Your task to perform on an android device: turn smart compose on in the gmail app Image 0: 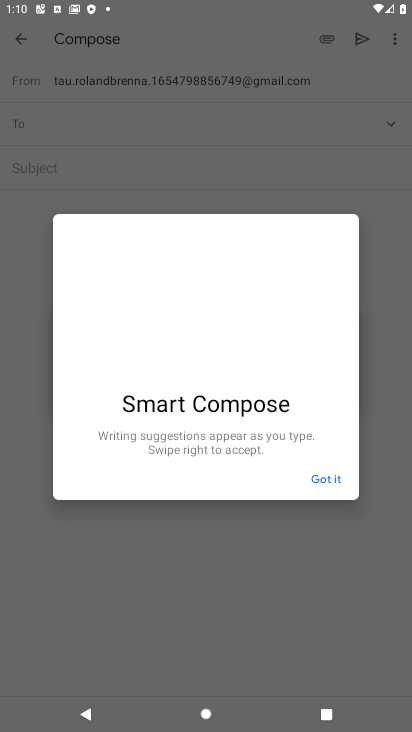
Step 0: drag from (393, 626) to (363, 454)
Your task to perform on an android device: turn smart compose on in the gmail app Image 1: 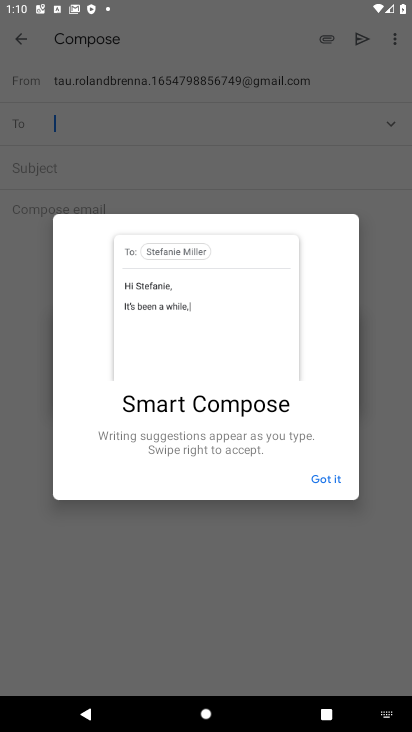
Step 1: press home button
Your task to perform on an android device: turn smart compose on in the gmail app Image 2: 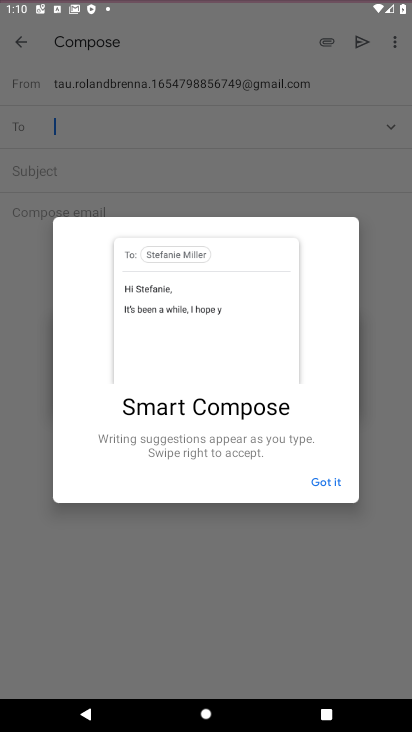
Step 2: drag from (373, 650) to (279, 71)
Your task to perform on an android device: turn smart compose on in the gmail app Image 3: 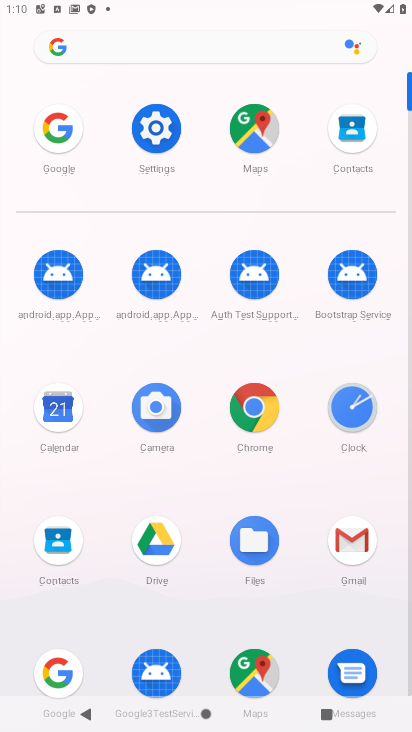
Step 3: click (370, 545)
Your task to perform on an android device: turn smart compose on in the gmail app Image 4: 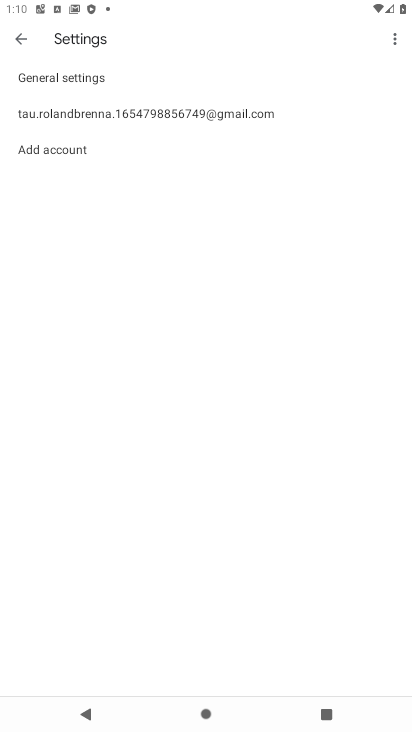
Step 4: click (200, 101)
Your task to perform on an android device: turn smart compose on in the gmail app Image 5: 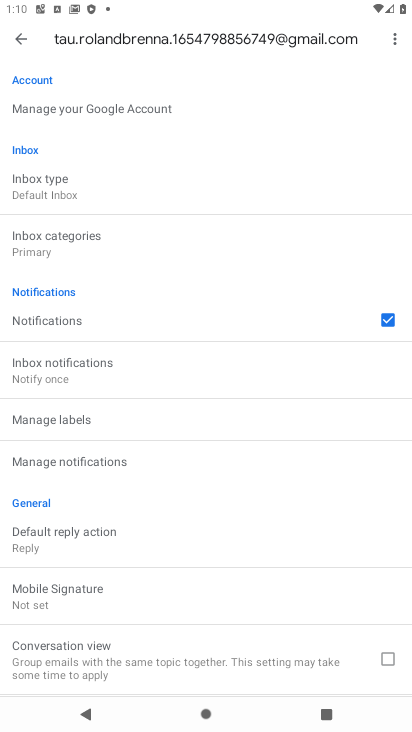
Step 5: task complete